Your task to perform on an android device: refresh tabs in the chrome app Image 0: 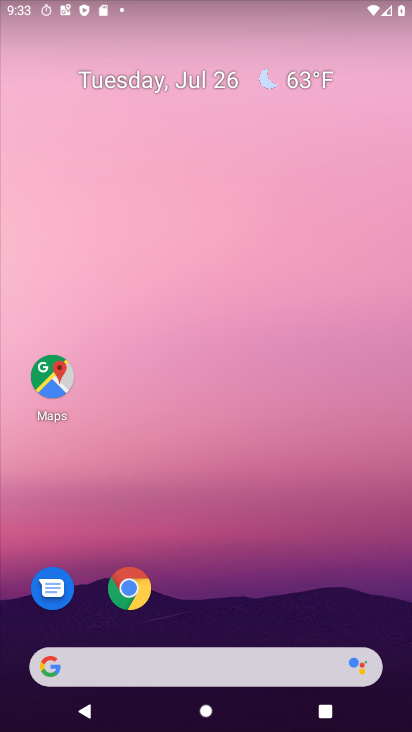
Step 0: click (141, 580)
Your task to perform on an android device: refresh tabs in the chrome app Image 1: 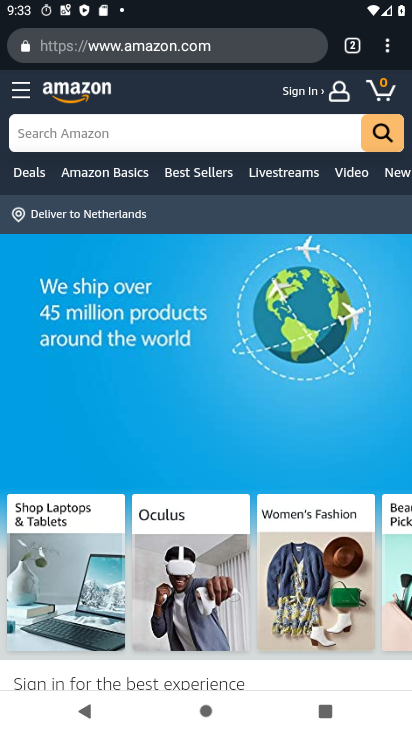
Step 1: click (394, 42)
Your task to perform on an android device: refresh tabs in the chrome app Image 2: 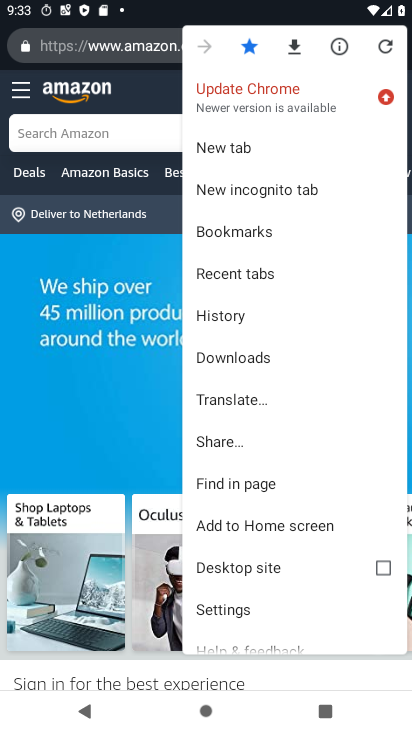
Step 2: click (387, 49)
Your task to perform on an android device: refresh tabs in the chrome app Image 3: 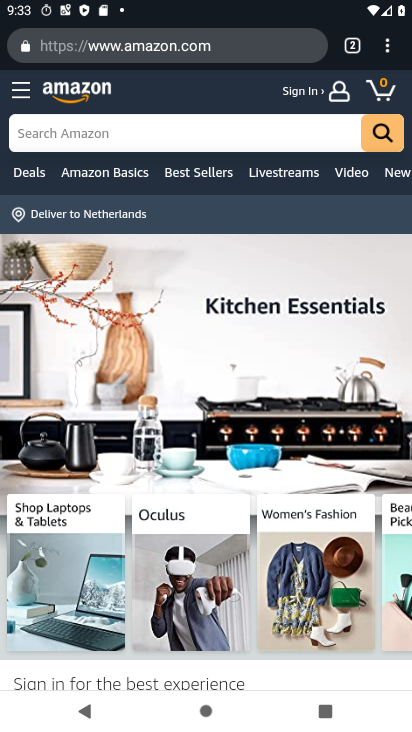
Step 3: task complete